Your task to perform on an android device: turn on priority inbox in the gmail app Image 0: 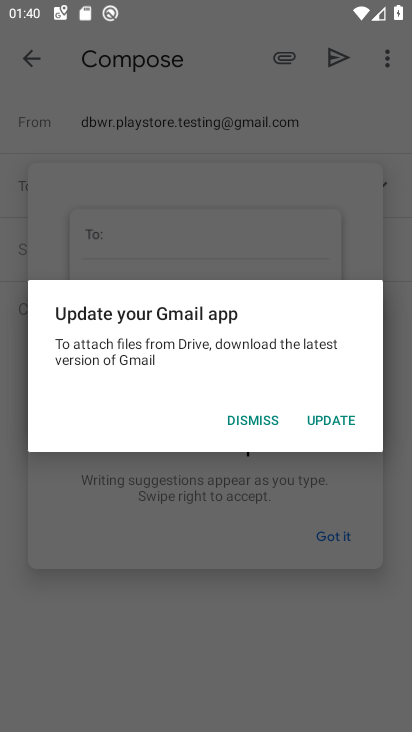
Step 0: press home button
Your task to perform on an android device: turn on priority inbox in the gmail app Image 1: 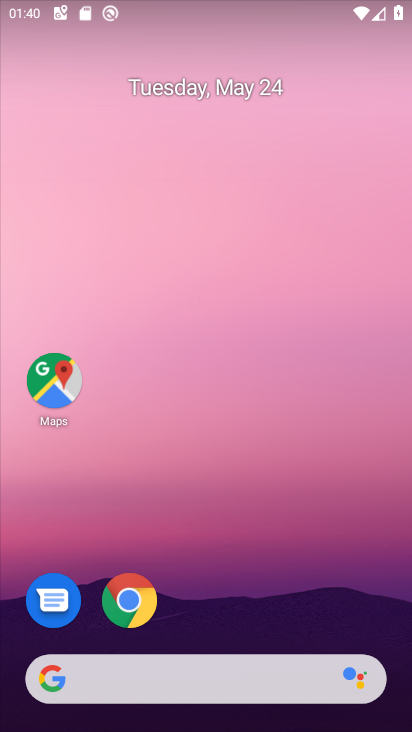
Step 1: drag from (239, 438) to (266, 216)
Your task to perform on an android device: turn on priority inbox in the gmail app Image 2: 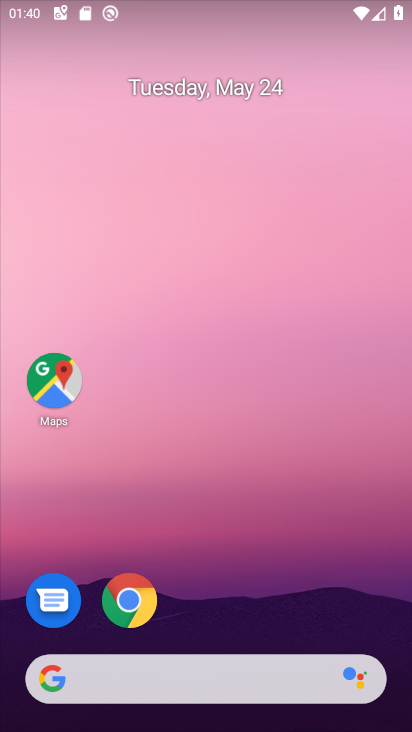
Step 2: drag from (271, 540) to (324, 166)
Your task to perform on an android device: turn on priority inbox in the gmail app Image 3: 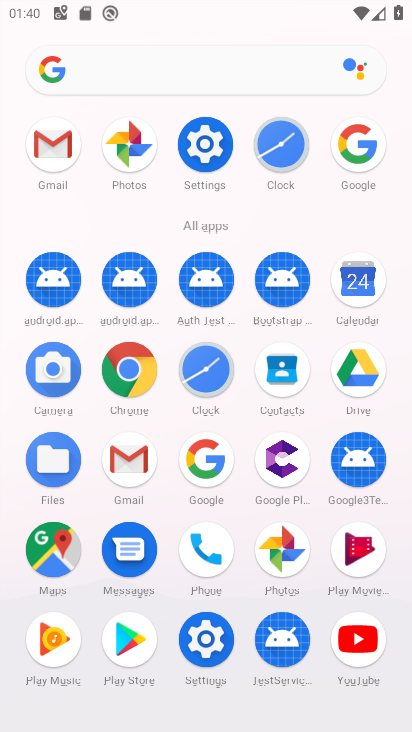
Step 3: click (130, 463)
Your task to perform on an android device: turn on priority inbox in the gmail app Image 4: 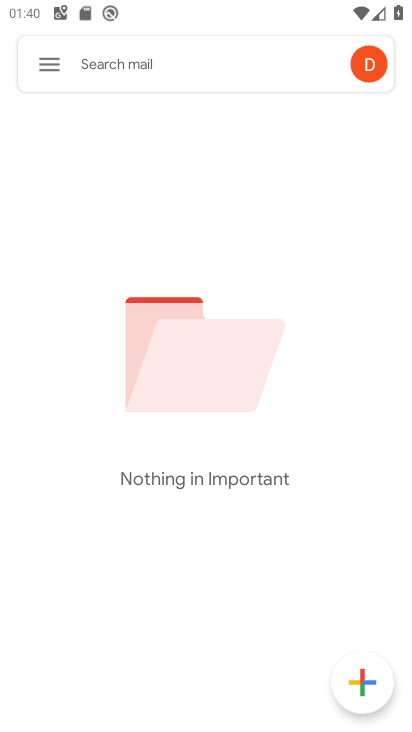
Step 4: click (57, 50)
Your task to perform on an android device: turn on priority inbox in the gmail app Image 5: 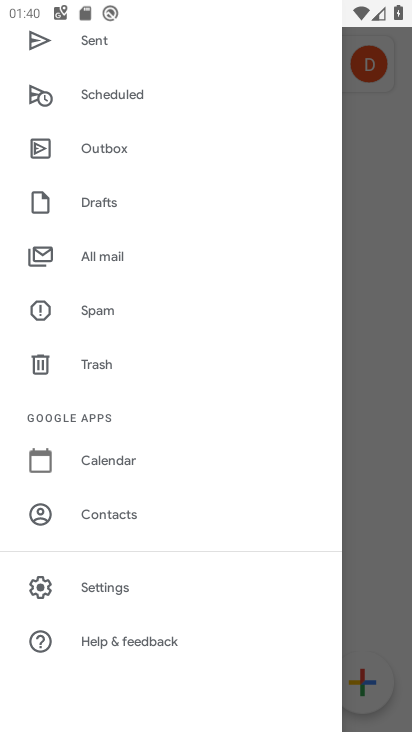
Step 5: drag from (95, 439) to (78, 299)
Your task to perform on an android device: turn on priority inbox in the gmail app Image 6: 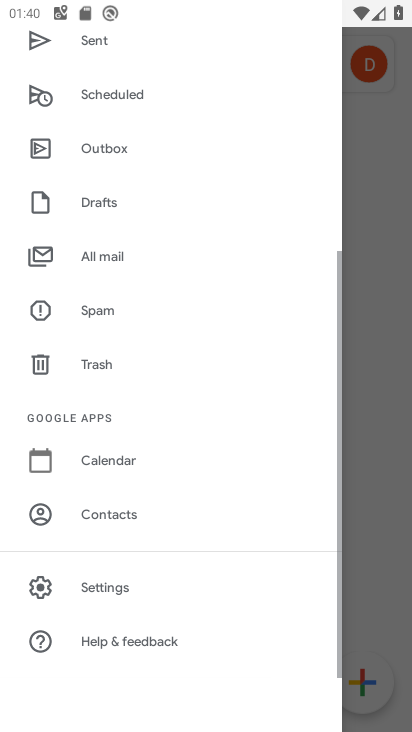
Step 6: drag from (106, 209) to (123, 560)
Your task to perform on an android device: turn on priority inbox in the gmail app Image 7: 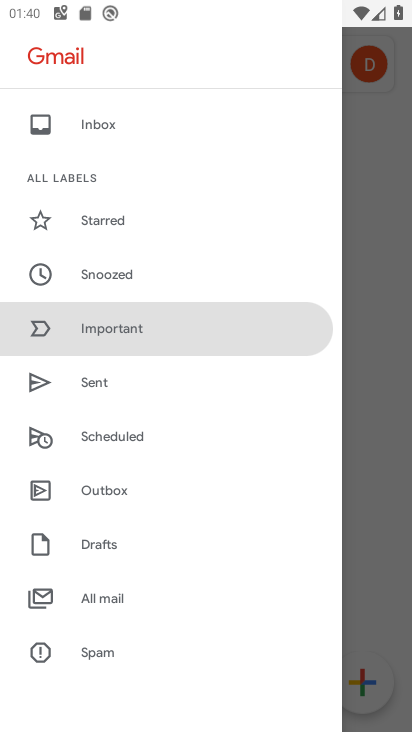
Step 7: click (131, 125)
Your task to perform on an android device: turn on priority inbox in the gmail app Image 8: 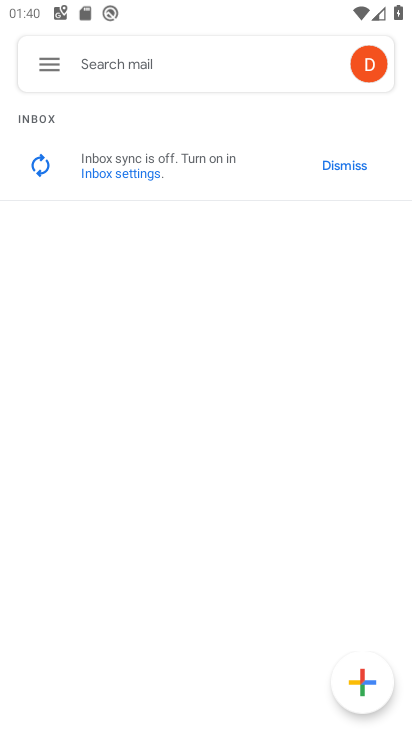
Step 8: click (88, 175)
Your task to perform on an android device: turn on priority inbox in the gmail app Image 9: 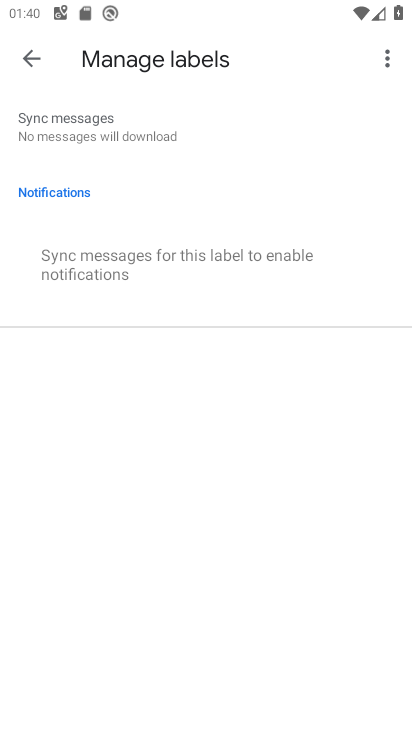
Step 9: task complete